Your task to perform on an android device: all mails in gmail Image 0: 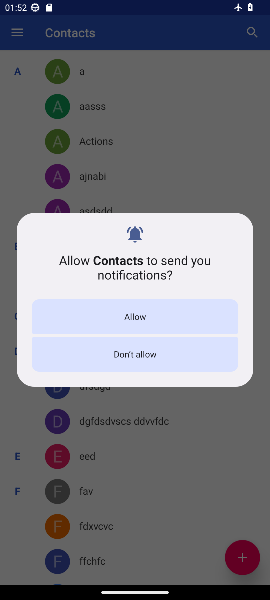
Step 0: press home button
Your task to perform on an android device: all mails in gmail Image 1: 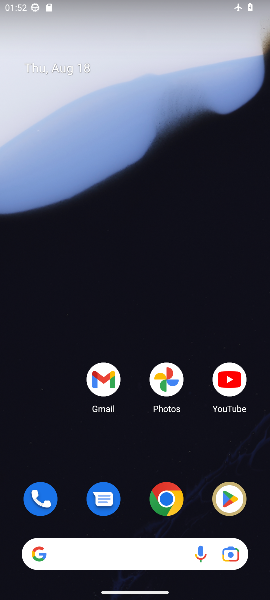
Step 1: click (102, 376)
Your task to perform on an android device: all mails in gmail Image 2: 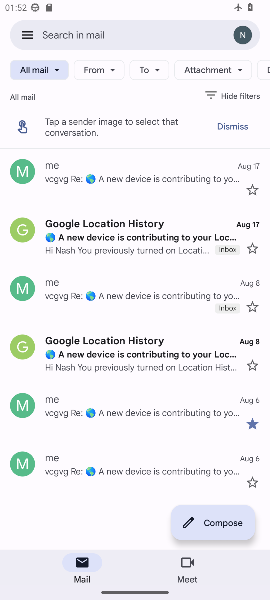
Step 2: task complete